Your task to perform on an android device: delete the emails in spam in the gmail app Image 0: 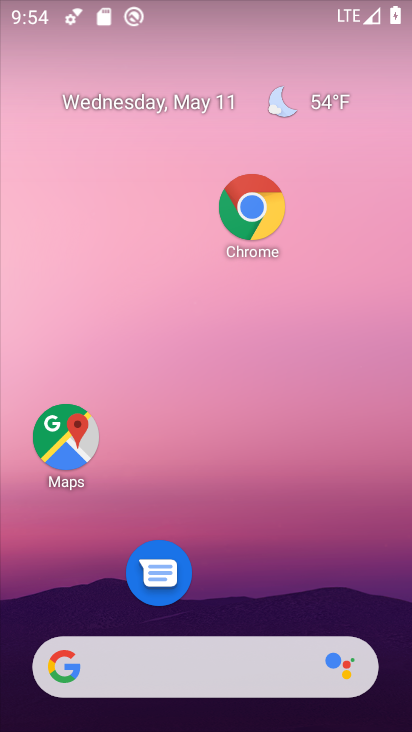
Step 0: drag from (327, 640) to (283, 61)
Your task to perform on an android device: delete the emails in spam in the gmail app Image 1: 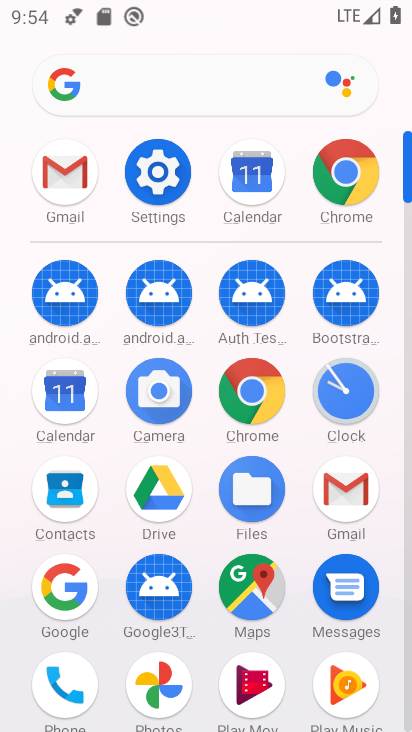
Step 1: click (348, 506)
Your task to perform on an android device: delete the emails in spam in the gmail app Image 2: 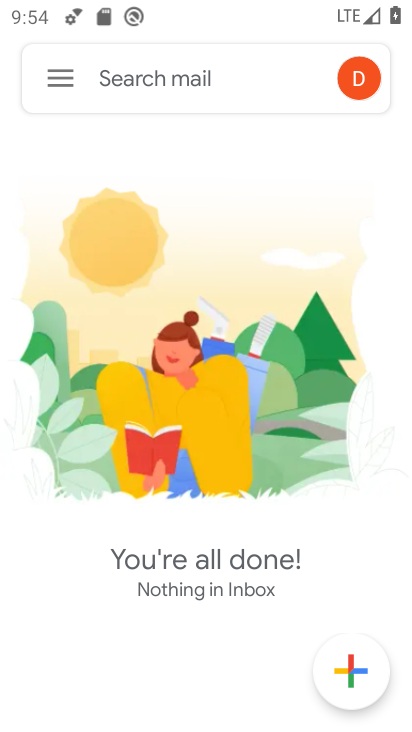
Step 2: click (40, 77)
Your task to perform on an android device: delete the emails in spam in the gmail app Image 3: 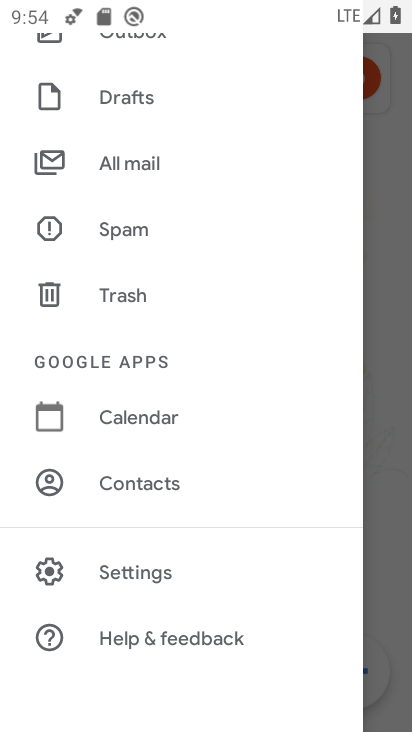
Step 3: click (164, 236)
Your task to perform on an android device: delete the emails in spam in the gmail app Image 4: 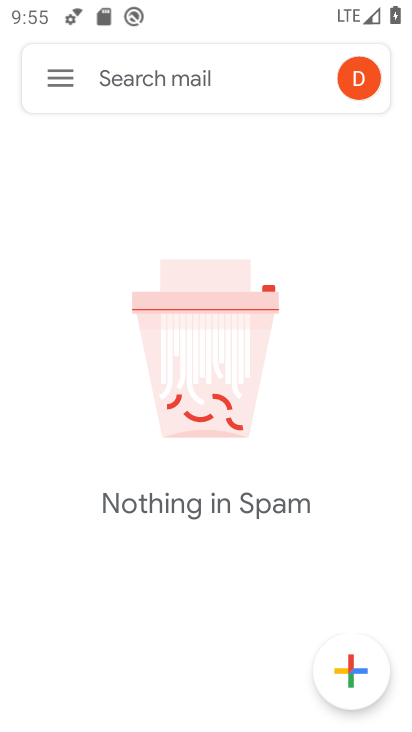
Step 4: task complete